Your task to perform on an android device: turn on sleep mode Image 0: 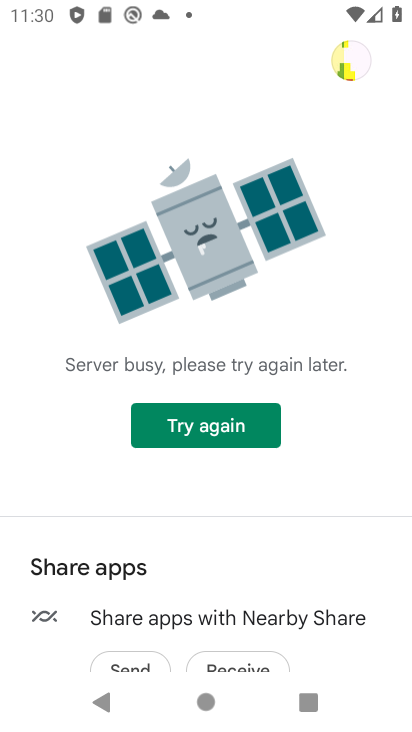
Step 0: drag from (266, 677) to (220, 385)
Your task to perform on an android device: turn on sleep mode Image 1: 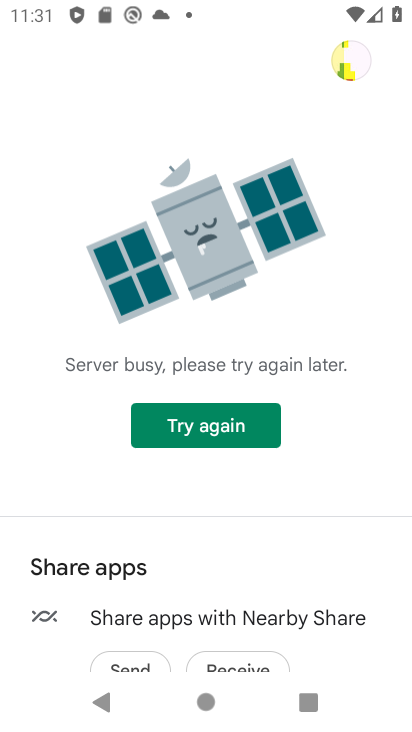
Step 1: press back button
Your task to perform on an android device: turn on sleep mode Image 2: 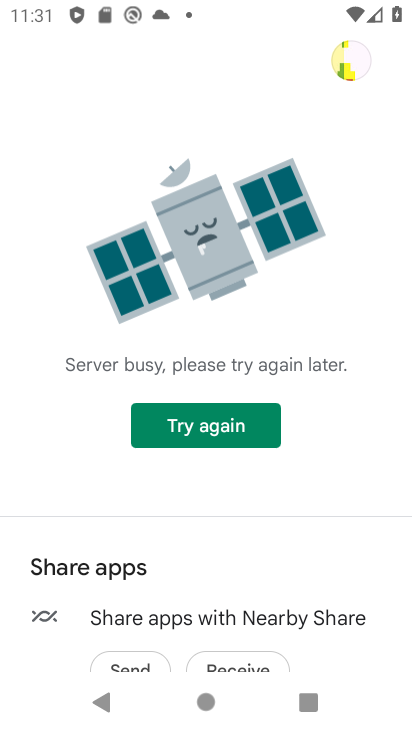
Step 2: press back button
Your task to perform on an android device: turn on sleep mode Image 3: 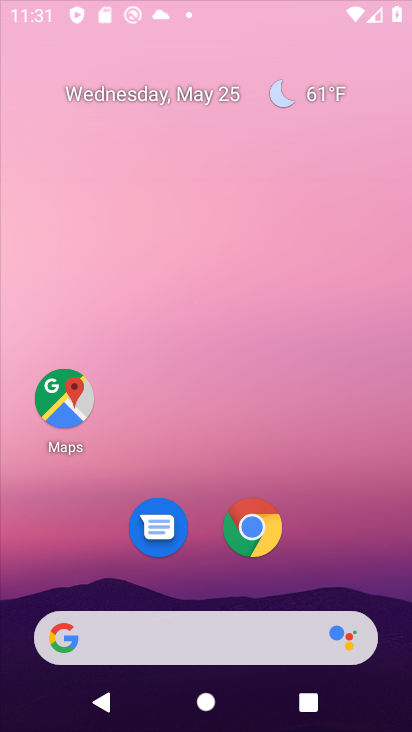
Step 3: press back button
Your task to perform on an android device: turn on sleep mode Image 4: 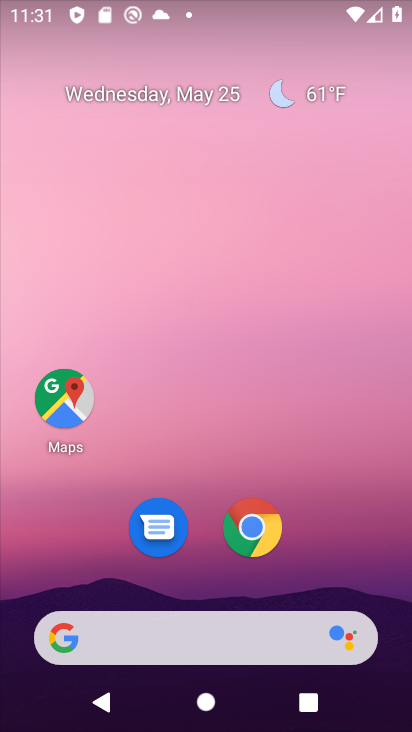
Step 4: drag from (193, 354) to (275, 9)
Your task to perform on an android device: turn on sleep mode Image 5: 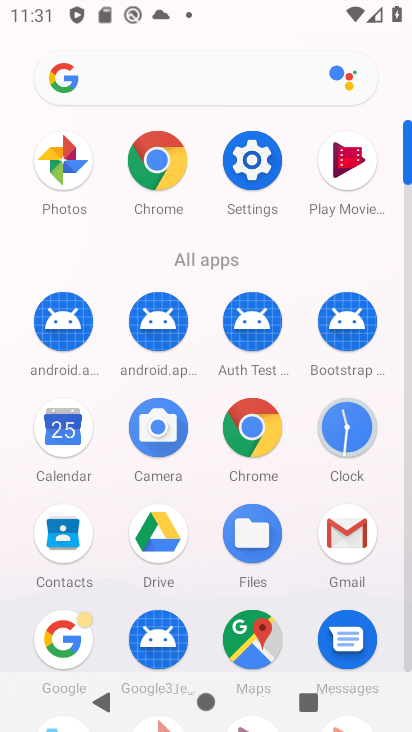
Step 5: click (179, 207)
Your task to perform on an android device: turn on sleep mode Image 6: 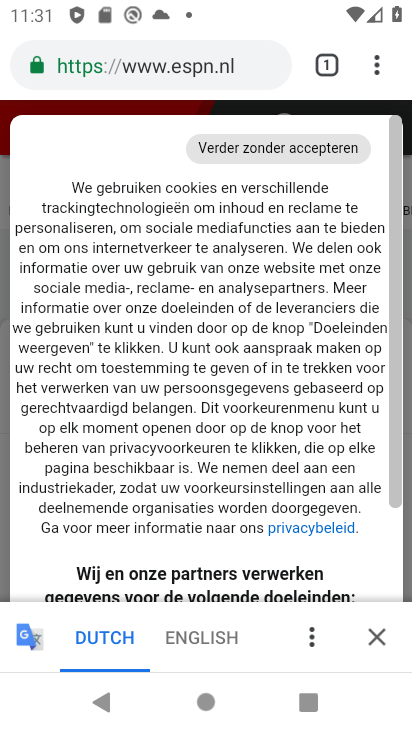
Step 6: press back button
Your task to perform on an android device: turn on sleep mode Image 7: 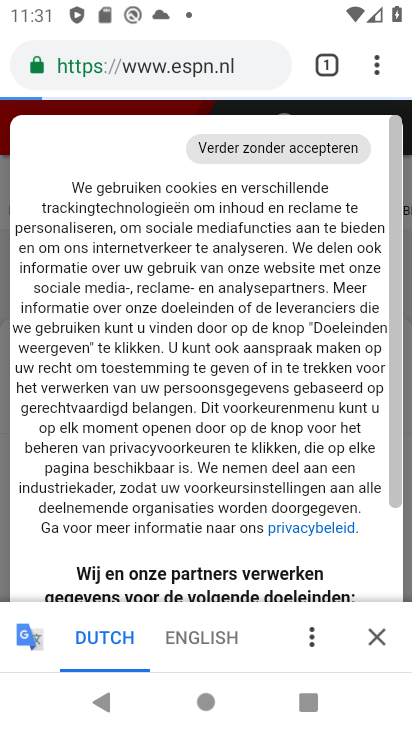
Step 7: press back button
Your task to perform on an android device: turn on sleep mode Image 8: 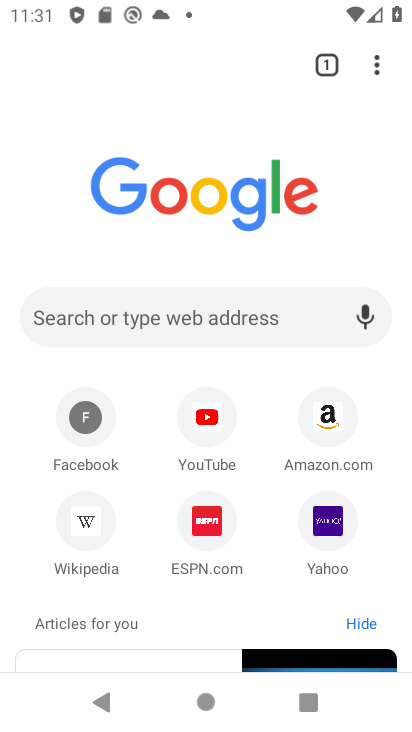
Step 8: press back button
Your task to perform on an android device: turn on sleep mode Image 9: 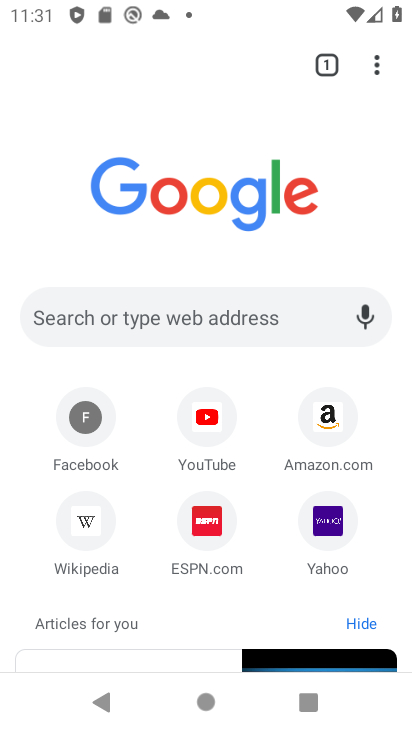
Step 9: press back button
Your task to perform on an android device: turn on sleep mode Image 10: 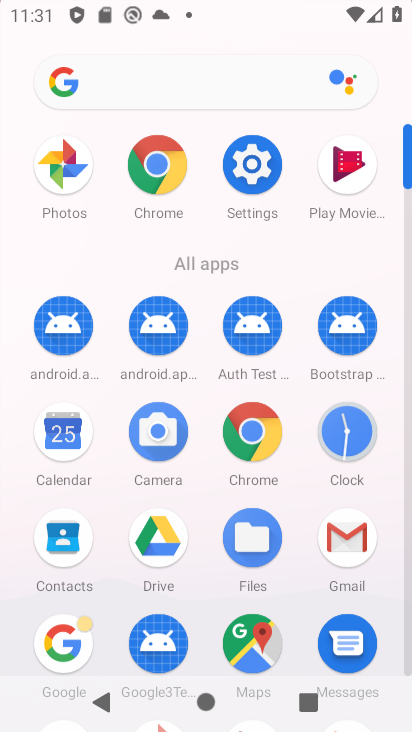
Step 10: press back button
Your task to perform on an android device: turn on sleep mode Image 11: 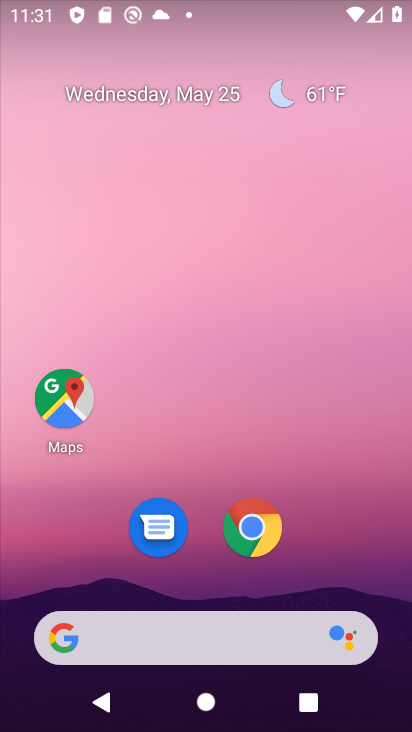
Step 11: press back button
Your task to perform on an android device: turn on sleep mode Image 12: 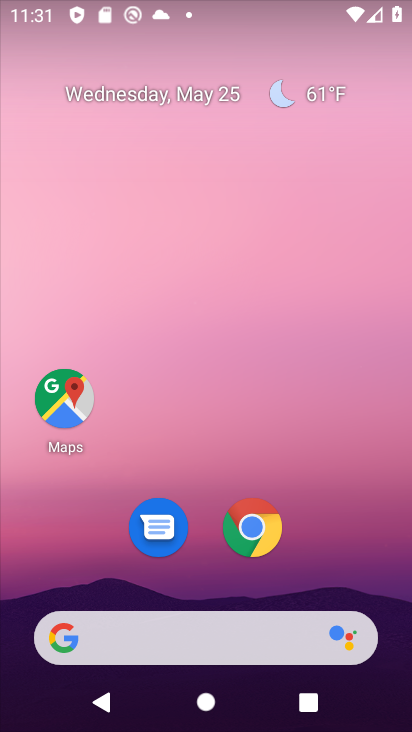
Step 12: press back button
Your task to perform on an android device: turn on sleep mode Image 13: 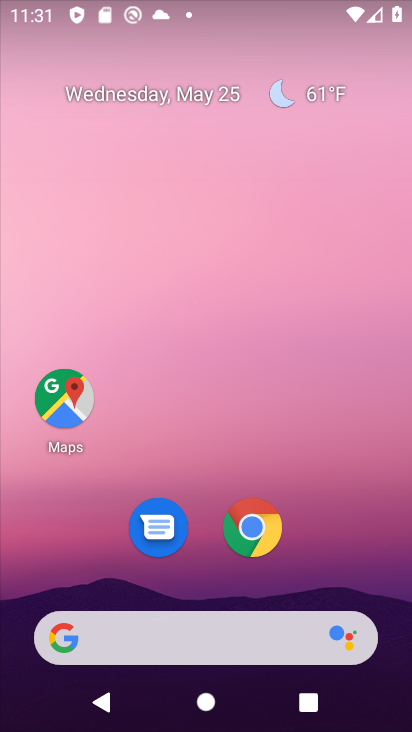
Step 13: press back button
Your task to perform on an android device: turn on sleep mode Image 14: 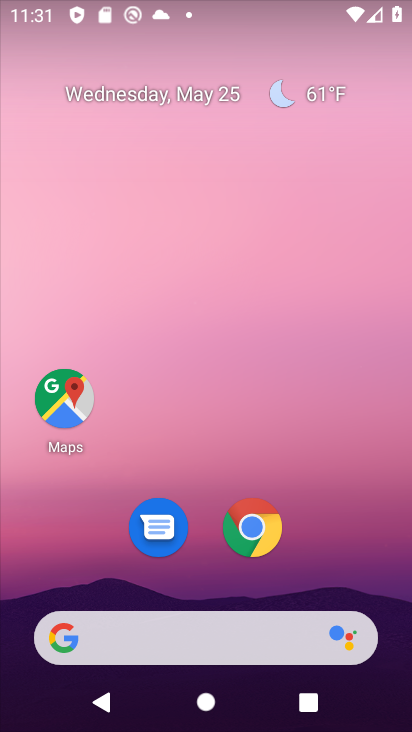
Step 14: press back button
Your task to perform on an android device: turn on sleep mode Image 15: 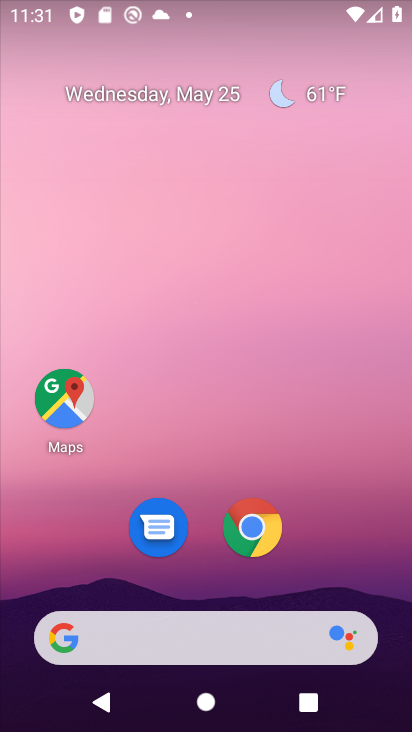
Step 15: drag from (211, 588) to (73, 43)
Your task to perform on an android device: turn on sleep mode Image 16: 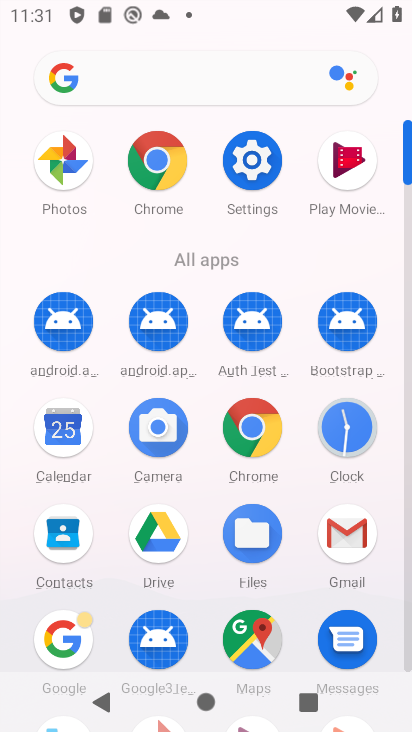
Step 16: click (234, 149)
Your task to perform on an android device: turn on sleep mode Image 17: 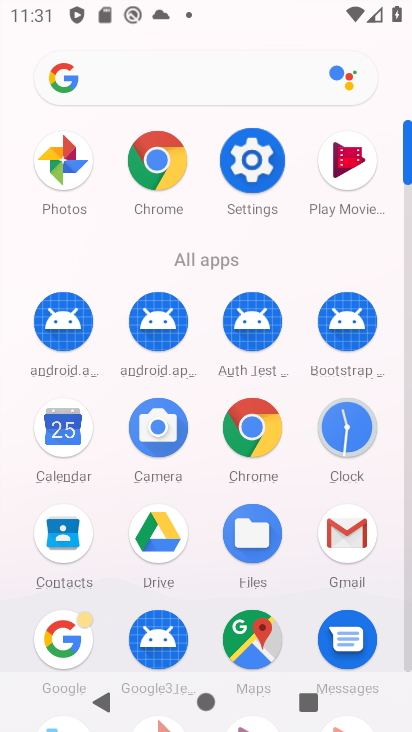
Step 17: click (236, 149)
Your task to perform on an android device: turn on sleep mode Image 18: 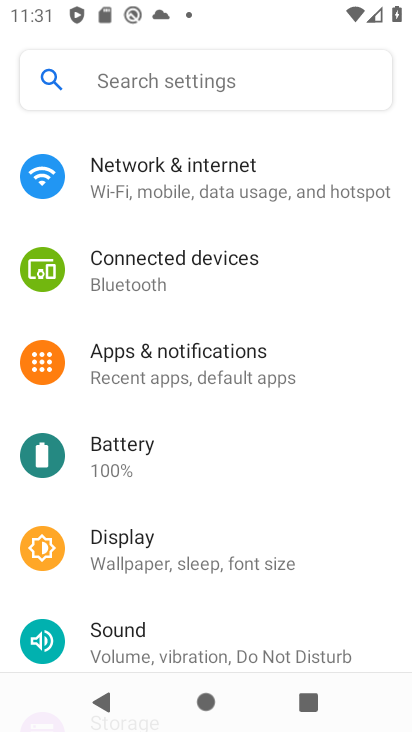
Step 18: click (236, 149)
Your task to perform on an android device: turn on sleep mode Image 19: 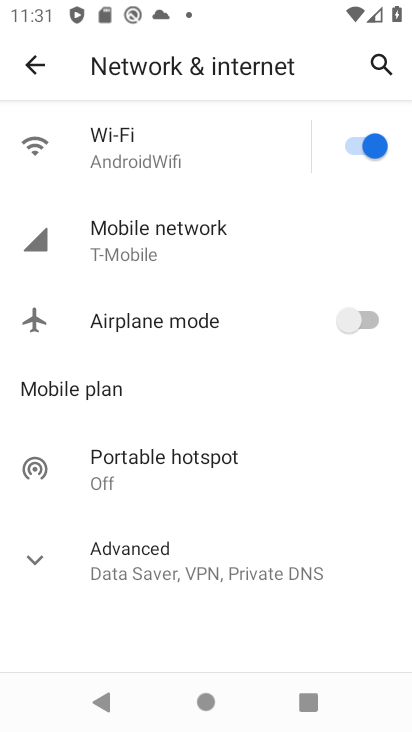
Step 19: click (33, 64)
Your task to perform on an android device: turn on sleep mode Image 20: 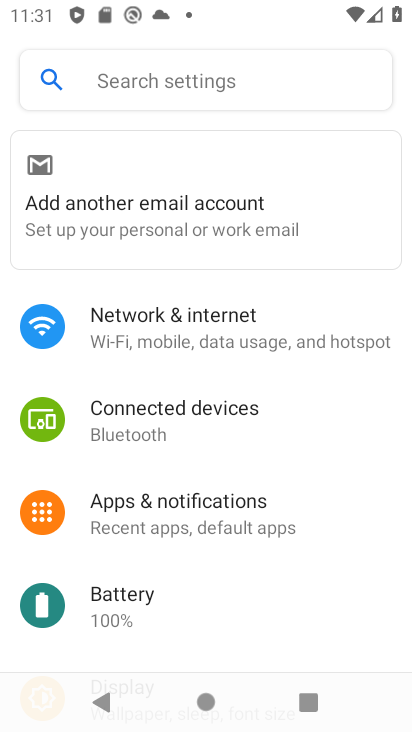
Step 20: drag from (117, 498) to (101, 117)
Your task to perform on an android device: turn on sleep mode Image 21: 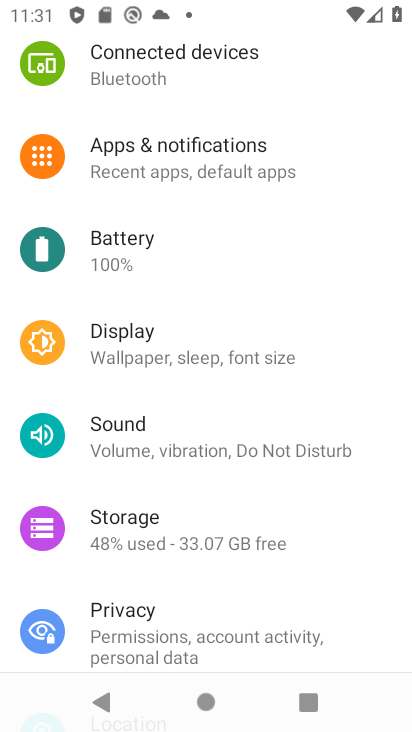
Step 21: drag from (141, 514) to (112, 93)
Your task to perform on an android device: turn on sleep mode Image 22: 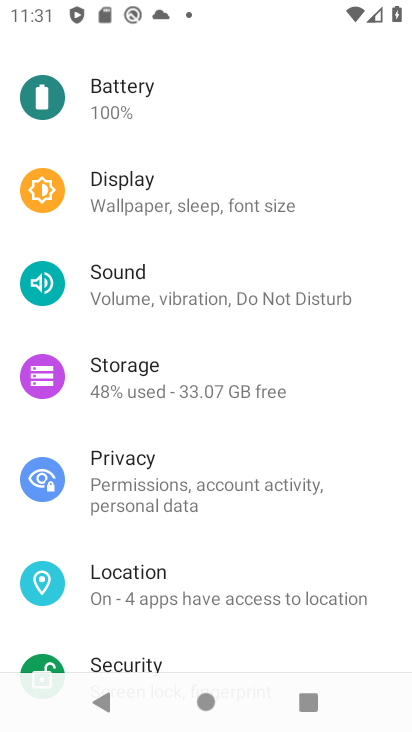
Step 22: drag from (204, 466) to (170, 89)
Your task to perform on an android device: turn on sleep mode Image 23: 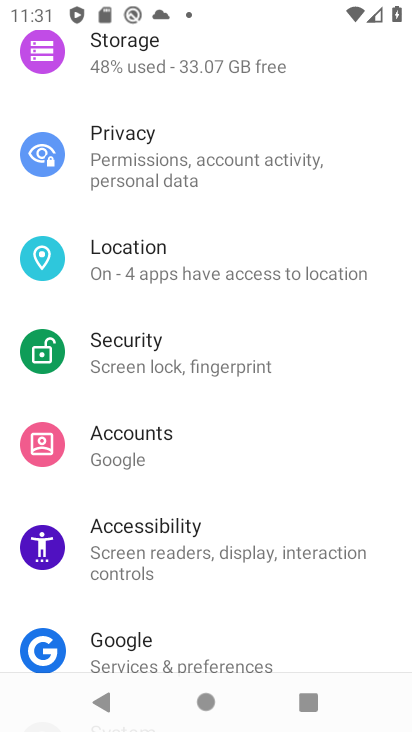
Step 23: drag from (155, 151) to (177, 407)
Your task to perform on an android device: turn on sleep mode Image 24: 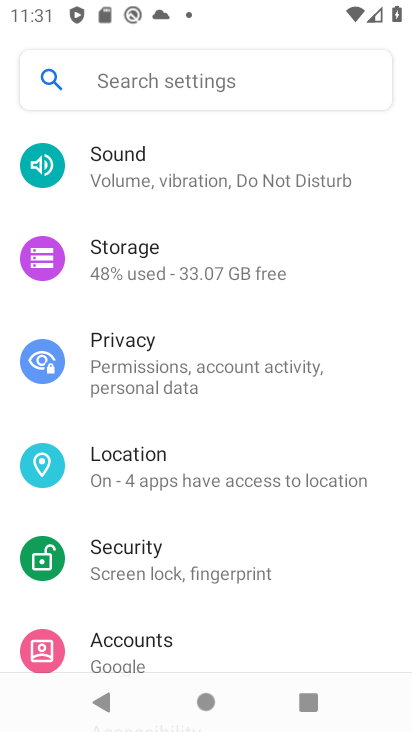
Step 24: click (173, 122)
Your task to perform on an android device: turn on sleep mode Image 25: 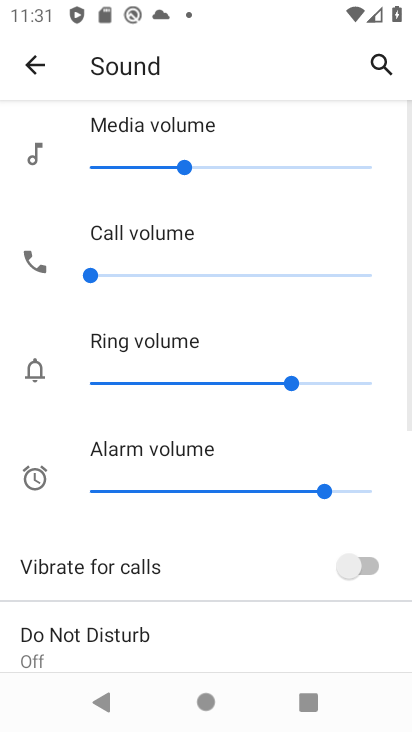
Step 25: click (17, 62)
Your task to perform on an android device: turn on sleep mode Image 26: 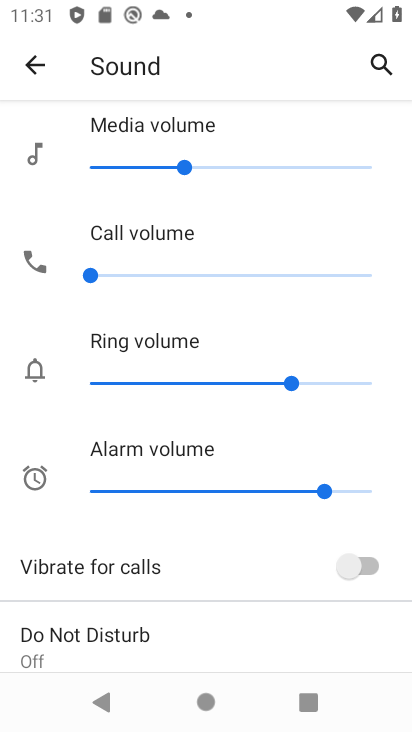
Step 26: click (20, 62)
Your task to perform on an android device: turn on sleep mode Image 27: 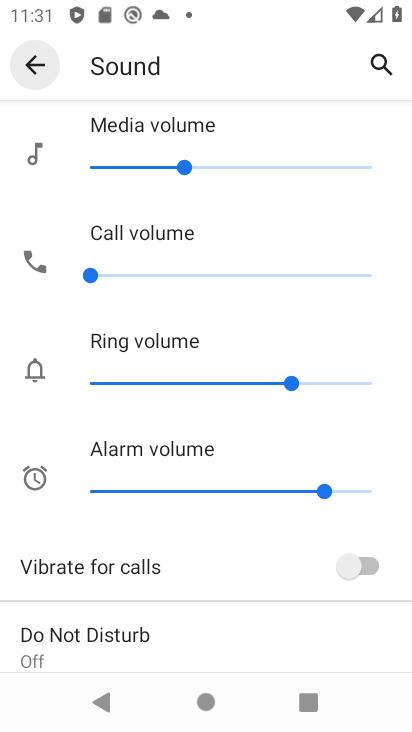
Step 27: click (21, 62)
Your task to perform on an android device: turn on sleep mode Image 28: 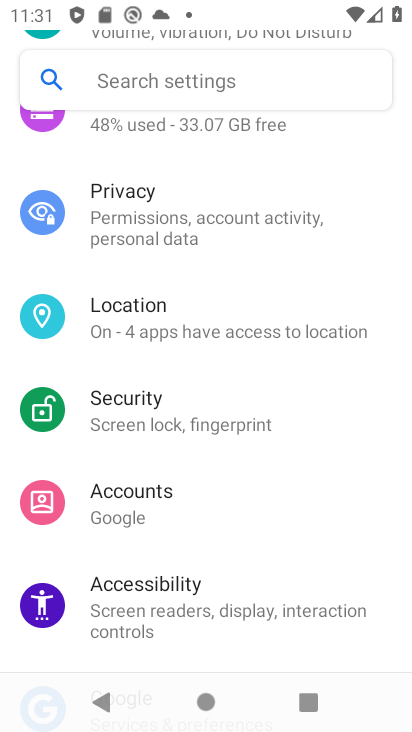
Step 28: click (22, 62)
Your task to perform on an android device: turn on sleep mode Image 29: 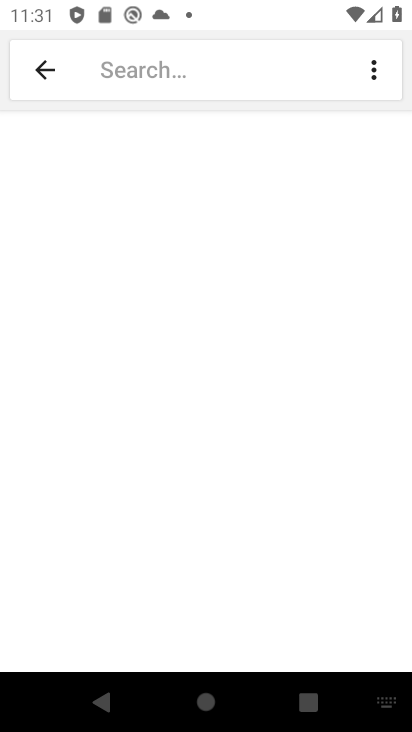
Step 29: click (41, 71)
Your task to perform on an android device: turn on sleep mode Image 30: 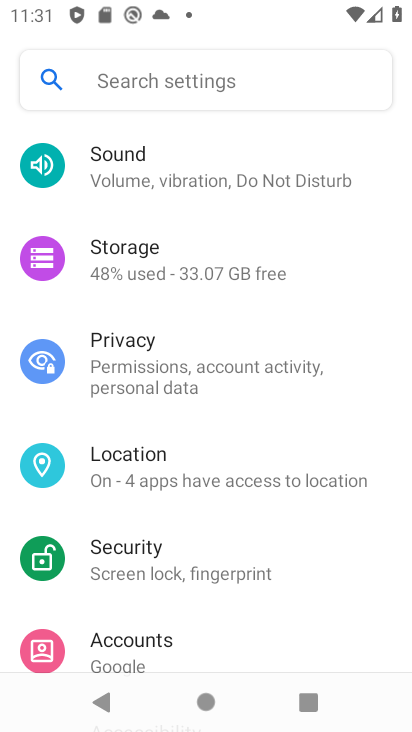
Step 30: drag from (147, 533) to (134, 93)
Your task to perform on an android device: turn on sleep mode Image 31: 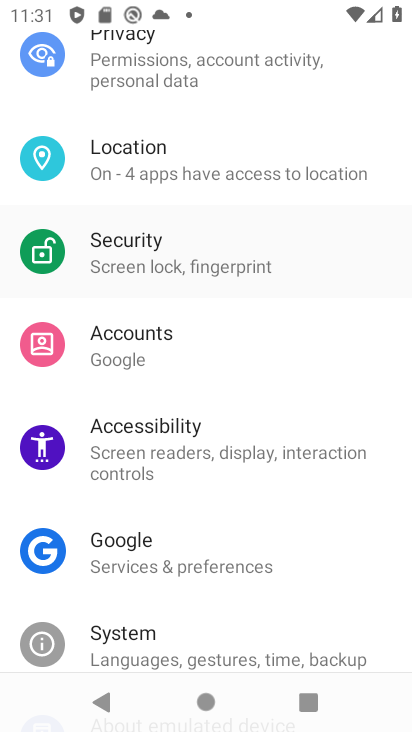
Step 31: drag from (139, 434) to (167, 265)
Your task to perform on an android device: turn on sleep mode Image 32: 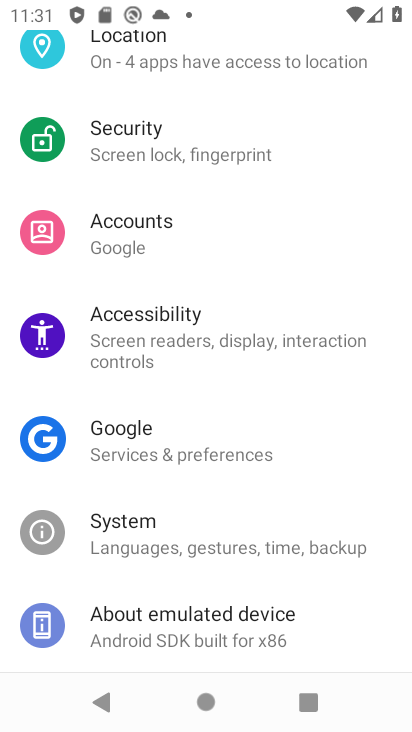
Step 32: drag from (149, 195) to (151, 579)
Your task to perform on an android device: turn on sleep mode Image 33: 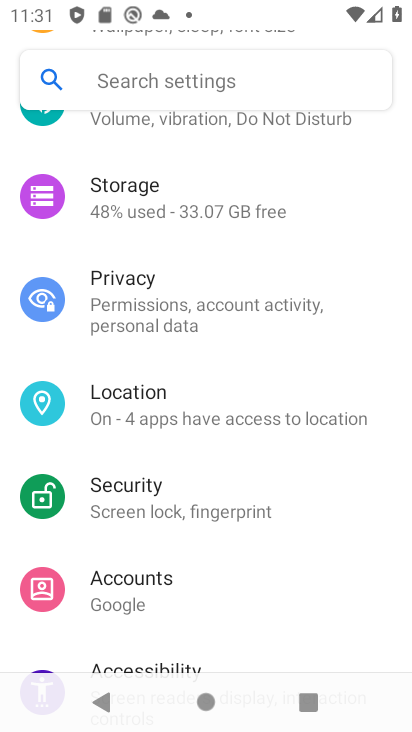
Step 33: drag from (131, 210) to (225, 659)
Your task to perform on an android device: turn on sleep mode Image 34: 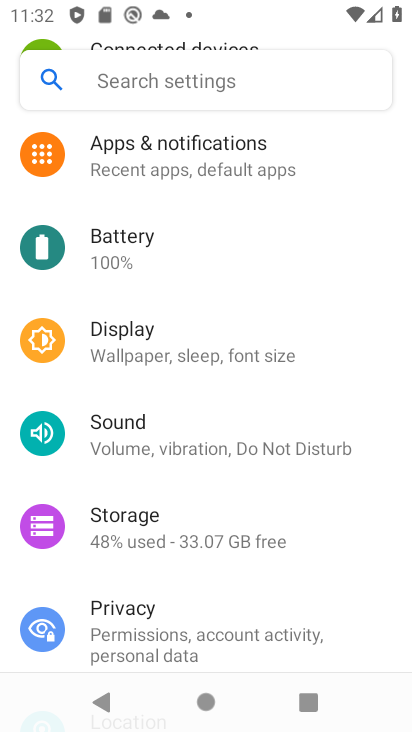
Step 34: click (128, 337)
Your task to perform on an android device: turn on sleep mode Image 35: 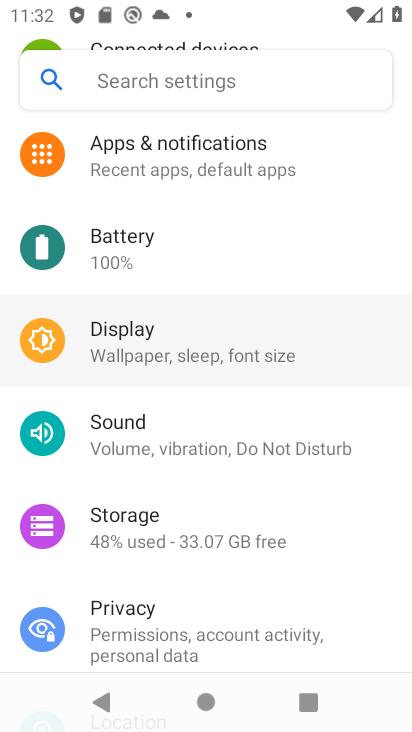
Step 35: click (128, 337)
Your task to perform on an android device: turn on sleep mode Image 36: 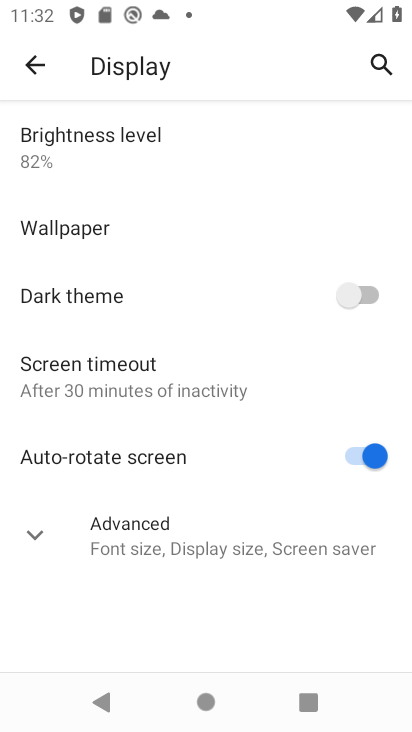
Step 36: click (89, 380)
Your task to perform on an android device: turn on sleep mode Image 37: 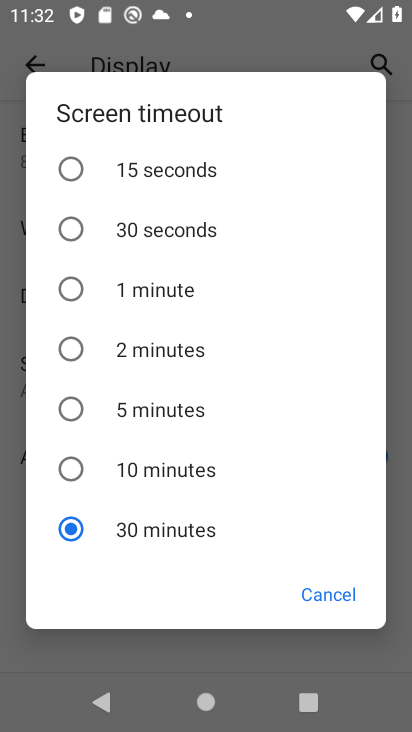
Step 37: task complete